Your task to perform on an android device: Open Amazon Image 0: 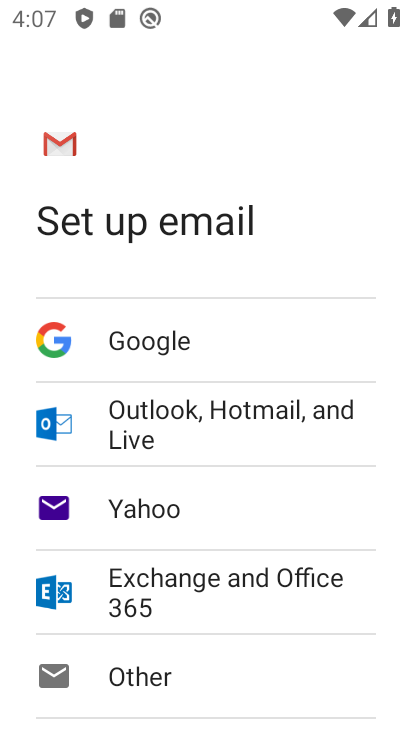
Step 0: press home button
Your task to perform on an android device: Open Amazon Image 1: 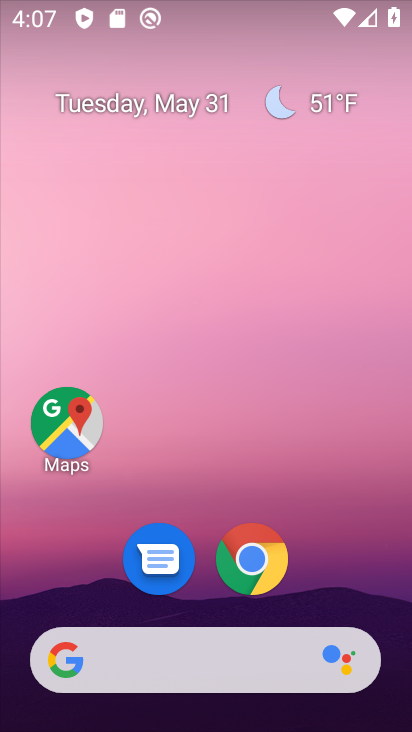
Step 1: click (258, 558)
Your task to perform on an android device: Open Amazon Image 2: 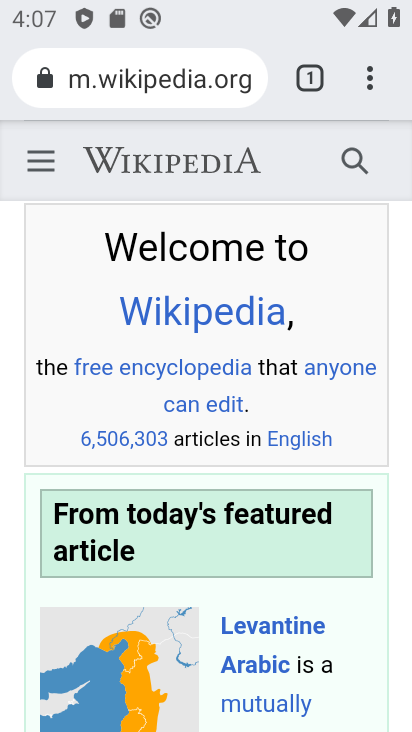
Step 2: click (181, 81)
Your task to perform on an android device: Open Amazon Image 3: 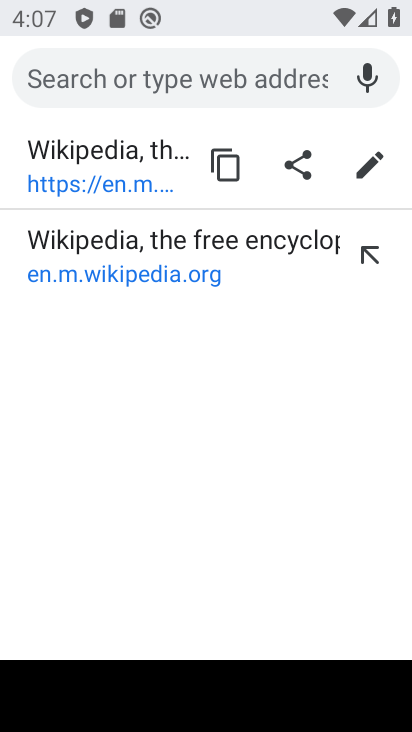
Step 3: type "amazon"
Your task to perform on an android device: Open Amazon Image 4: 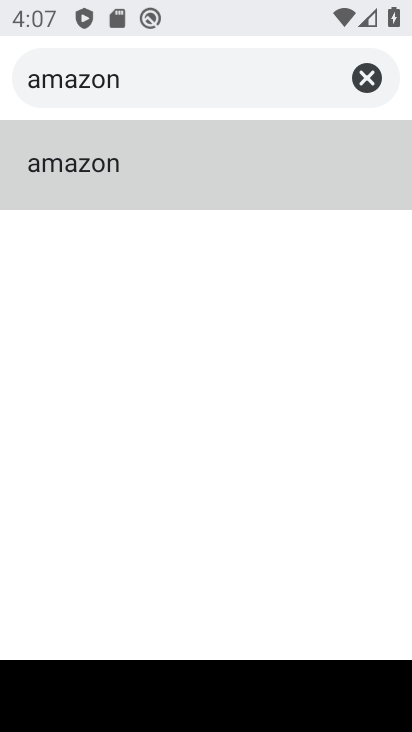
Step 4: click (132, 155)
Your task to perform on an android device: Open Amazon Image 5: 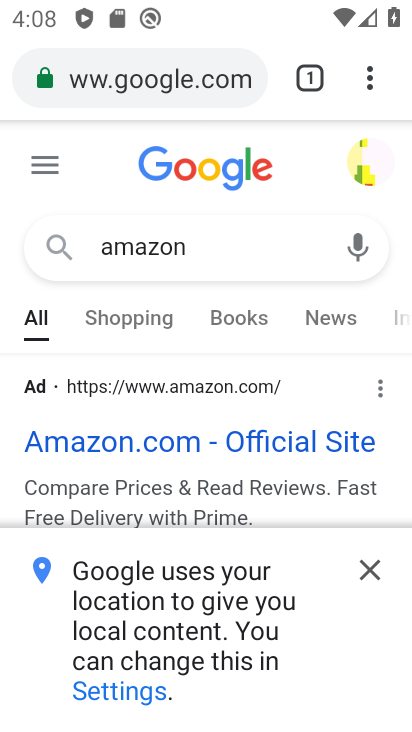
Step 5: click (104, 439)
Your task to perform on an android device: Open Amazon Image 6: 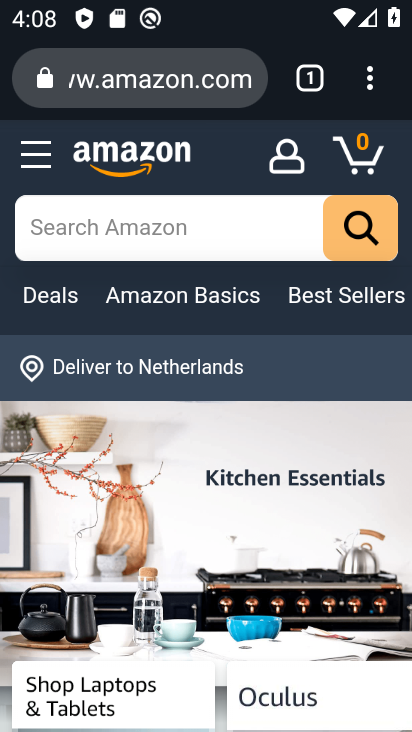
Step 6: task complete